Your task to perform on an android device: Open Chrome and go to the settings page Image 0: 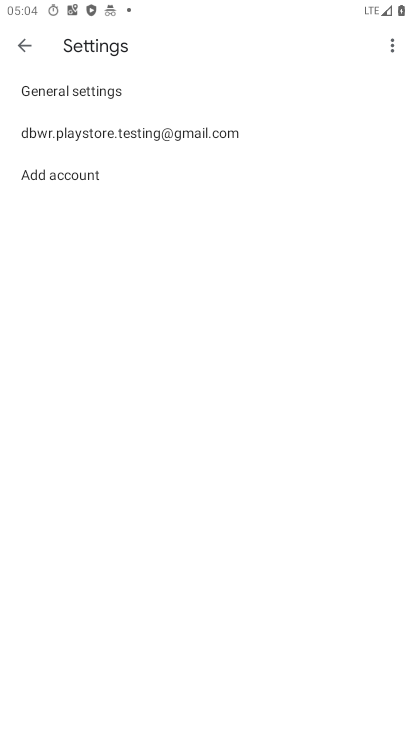
Step 0: press home button
Your task to perform on an android device: Open Chrome and go to the settings page Image 1: 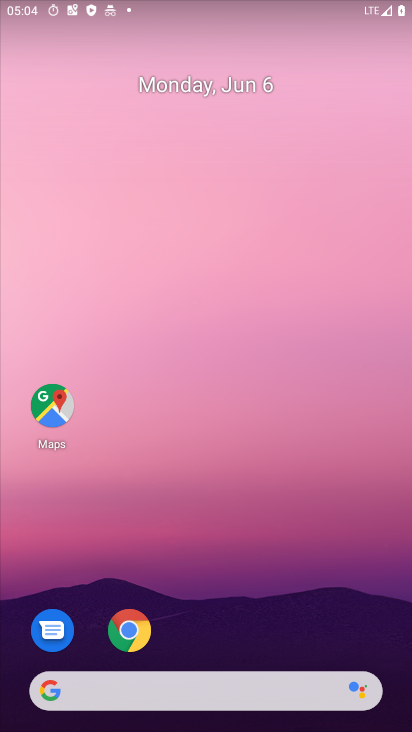
Step 1: drag from (243, 641) to (281, 12)
Your task to perform on an android device: Open Chrome and go to the settings page Image 2: 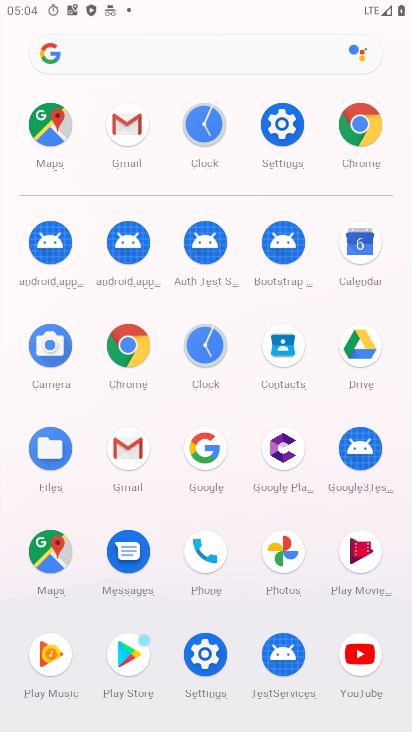
Step 2: click (130, 351)
Your task to perform on an android device: Open Chrome and go to the settings page Image 3: 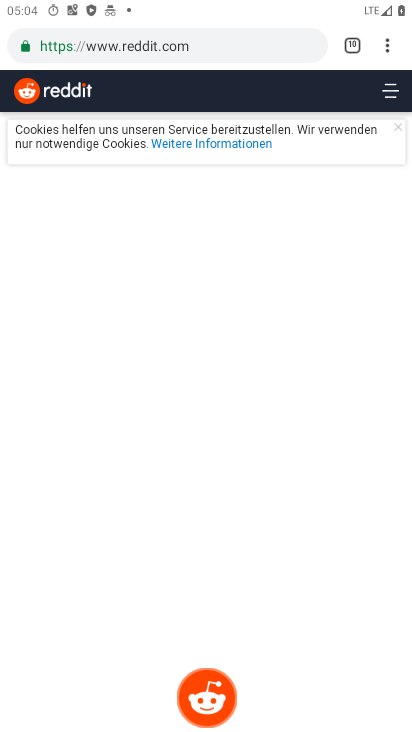
Step 3: task complete